Your task to perform on an android device: turn off picture-in-picture Image 0: 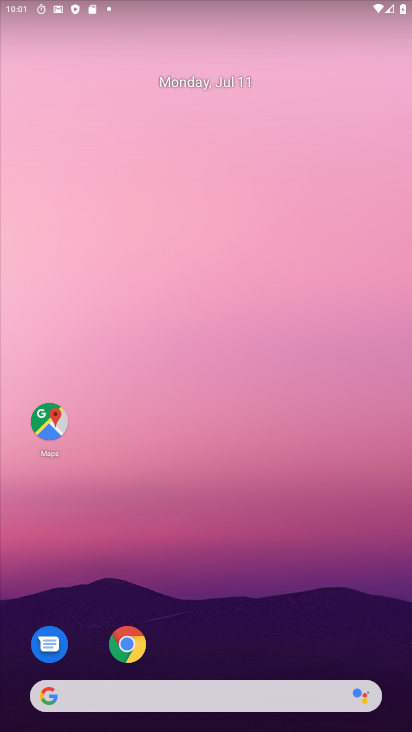
Step 0: click (135, 642)
Your task to perform on an android device: turn off picture-in-picture Image 1: 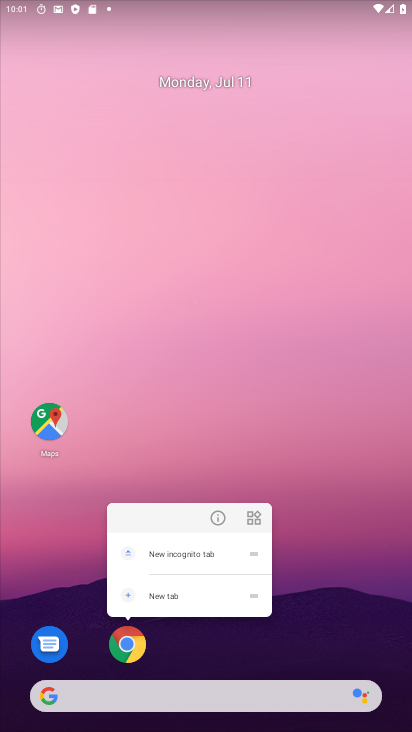
Step 1: click (214, 512)
Your task to perform on an android device: turn off picture-in-picture Image 2: 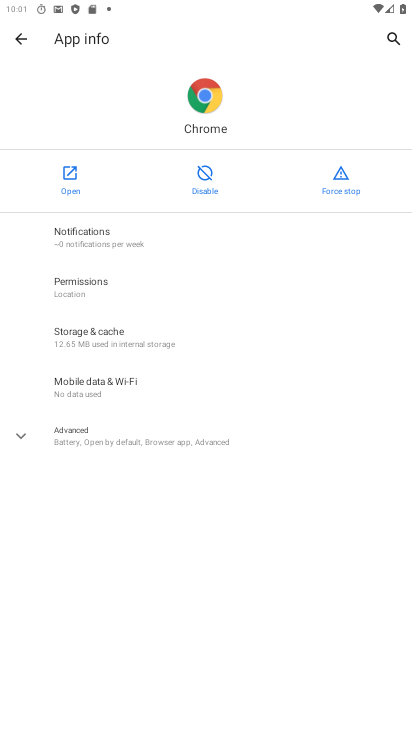
Step 2: click (77, 437)
Your task to perform on an android device: turn off picture-in-picture Image 3: 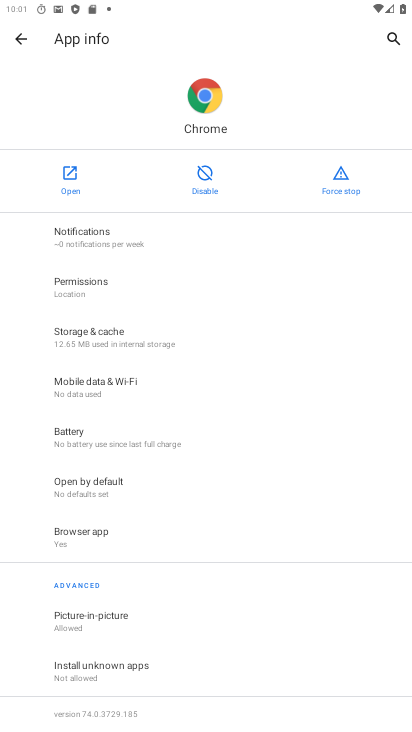
Step 3: click (97, 616)
Your task to perform on an android device: turn off picture-in-picture Image 4: 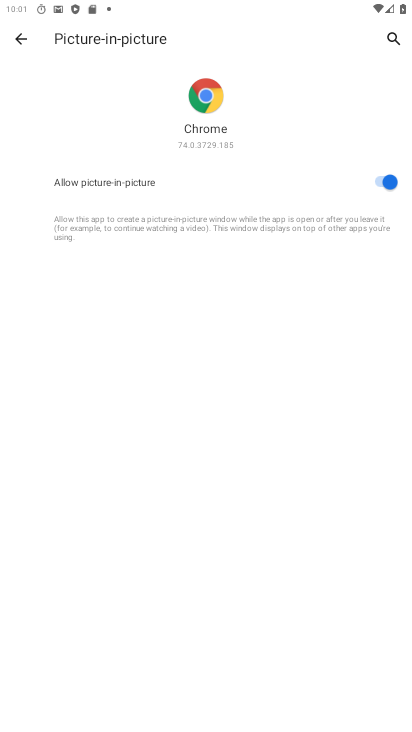
Step 4: click (382, 176)
Your task to perform on an android device: turn off picture-in-picture Image 5: 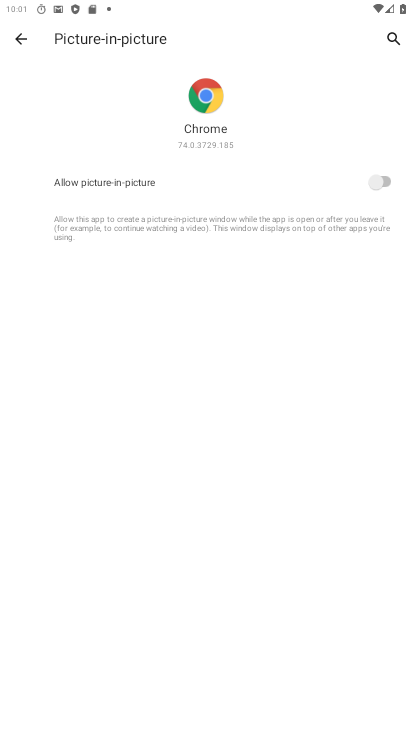
Step 5: task complete